Your task to perform on an android device: Open maps Image 0: 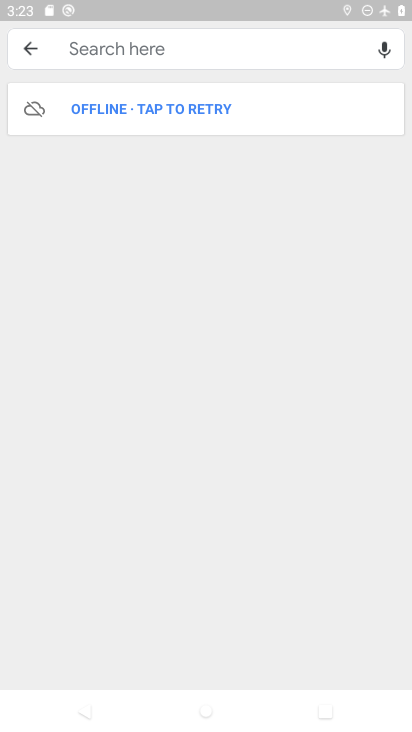
Step 0: press home button
Your task to perform on an android device: Open maps Image 1: 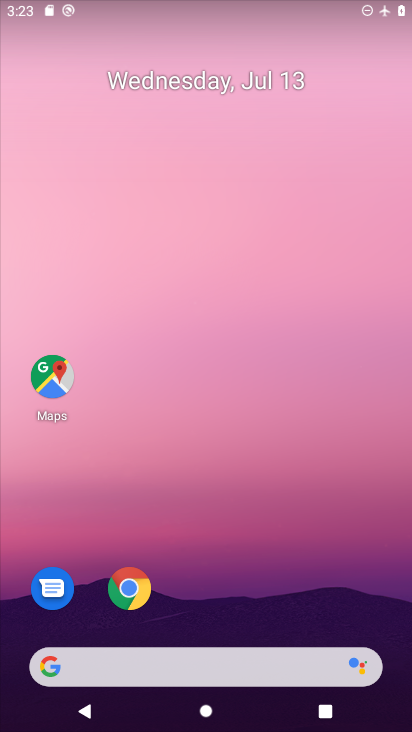
Step 1: drag from (212, 634) to (162, 76)
Your task to perform on an android device: Open maps Image 2: 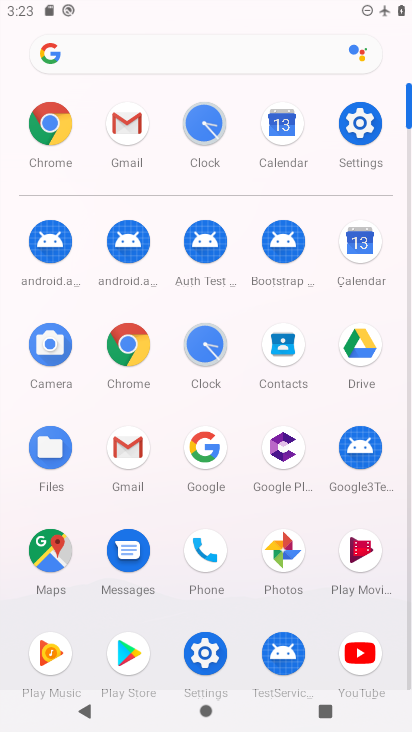
Step 2: click (34, 584)
Your task to perform on an android device: Open maps Image 3: 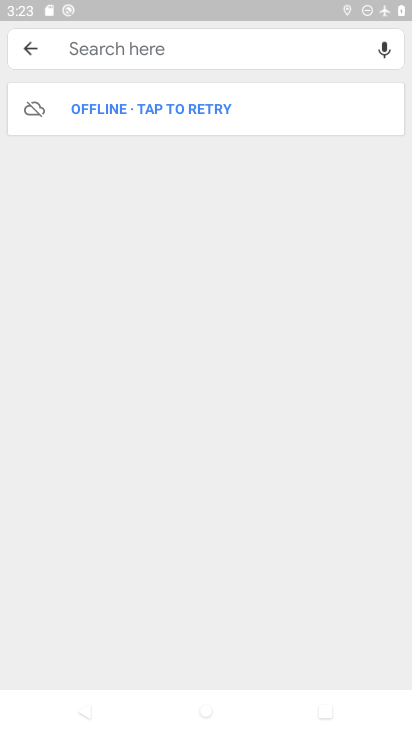
Step 3: click (23, 40)
Your task to perform on an android device: Open maps Image 4: 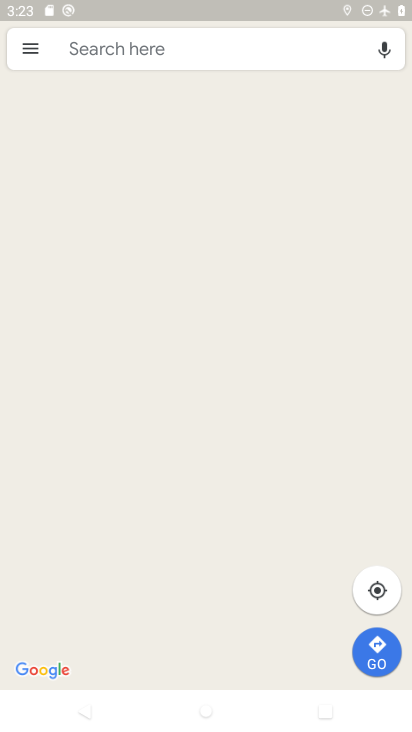
Step 4: task complete